Your task to perform on an android device: What's on my calendar tomorrow? Image 0: 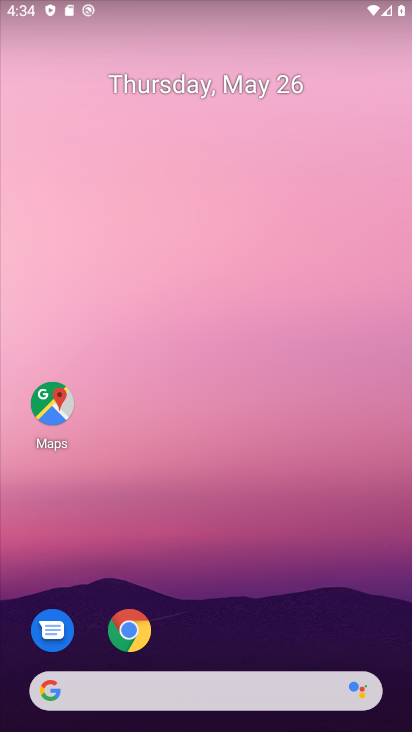
Step 0: click (226, 674)
Your task to perform on an android device: What's on my calendar tomorrow? Image 1: 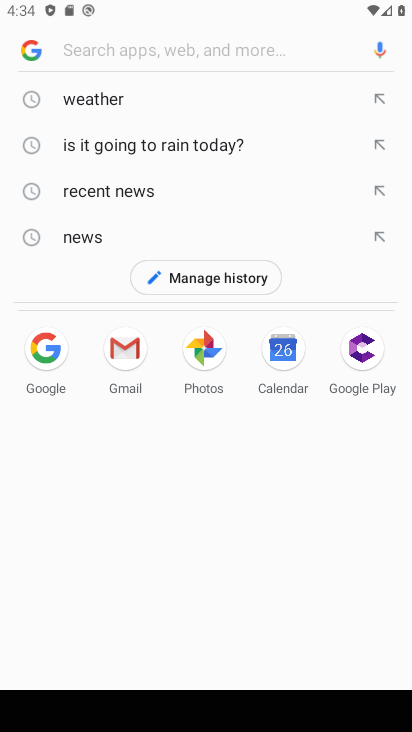
Step 1: drag from (226, 672) to (238, 617)
Your task to perform on an android device: What's on my calendar tomorrow? Image 2: 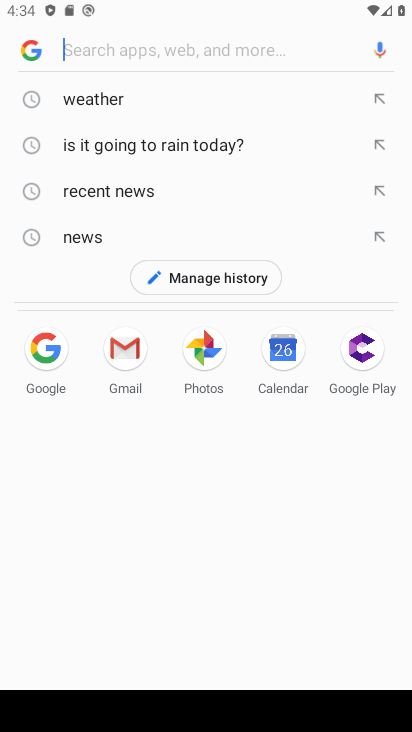
Step 2: press home button
Your task to perform on an android device: What's on my calendar tomorrow? Image 3: 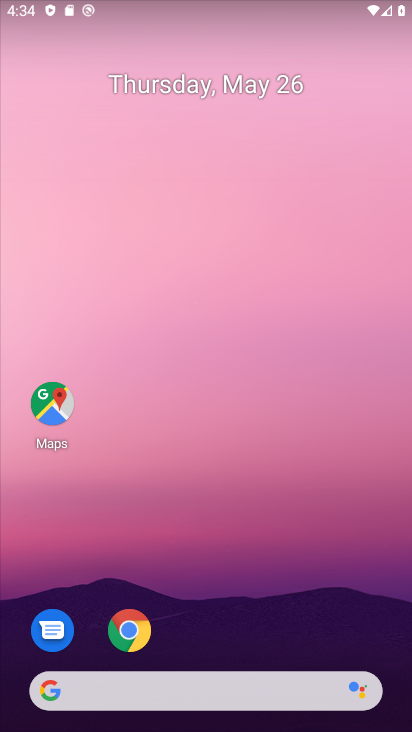
Step 3: drag from (204, 671) to (285, 115)
Your task to perform on an android device: What's on my calendar tomorrow? Image 4: 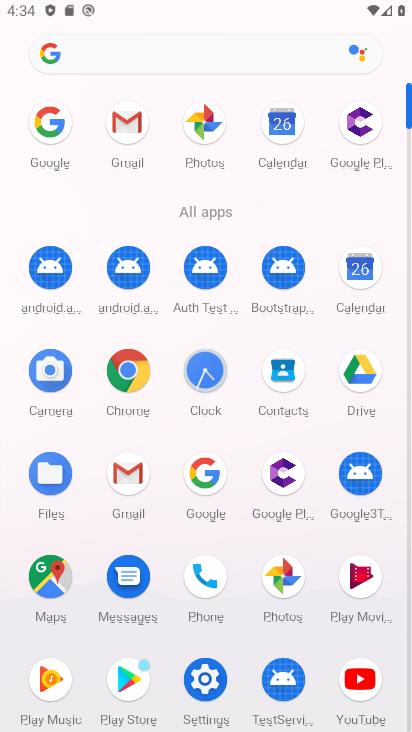
Step 4: click (280, 125)
Your task to perform on an android device: What's on my calendar tomorrow? Image 5: 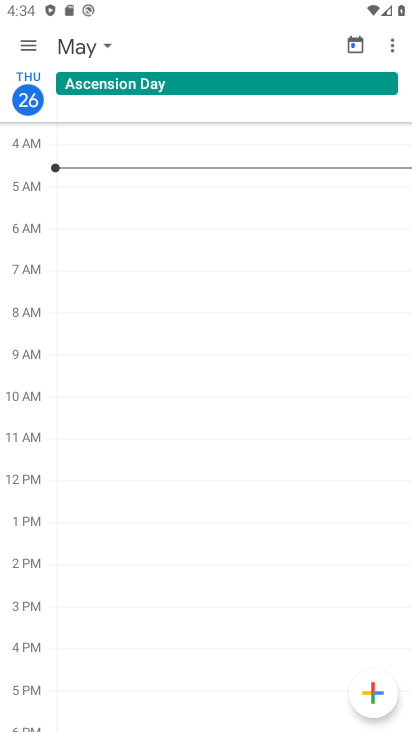
Step 5: click (106, 45)
Your task to perform on an android device: What's on my calendar tomorrow? Image 6: 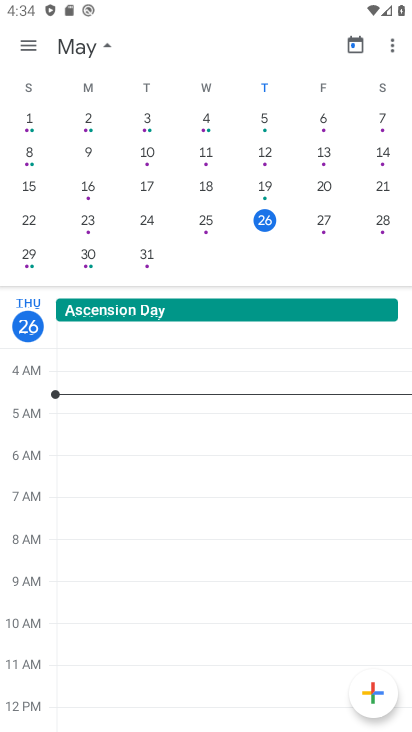
Step 6: click (326, 225)
Your task to perform on an android device: What's on my calendar tomorrow? Image 7: 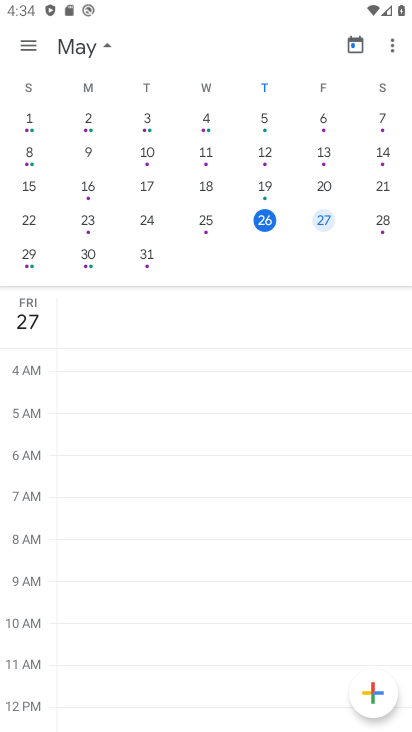
Step 7: task complete